Your task to perform on an android device: move a message to another label in the gmail app Image 0: 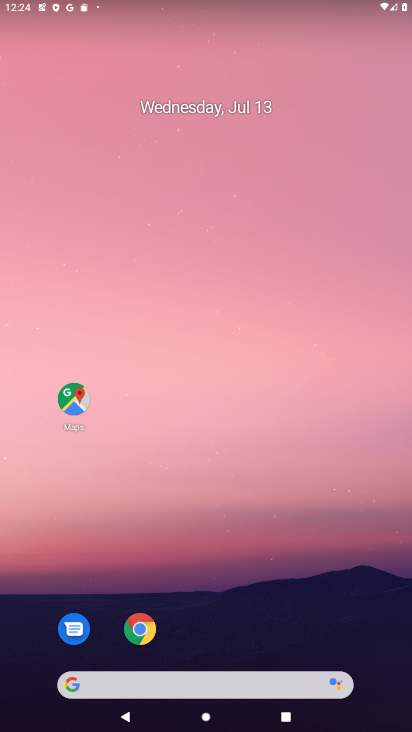
Step 0: drag from (227, 594) to (227, 218)
Your task to perform on an android device: move a message to another label in the gmail app Image 1: 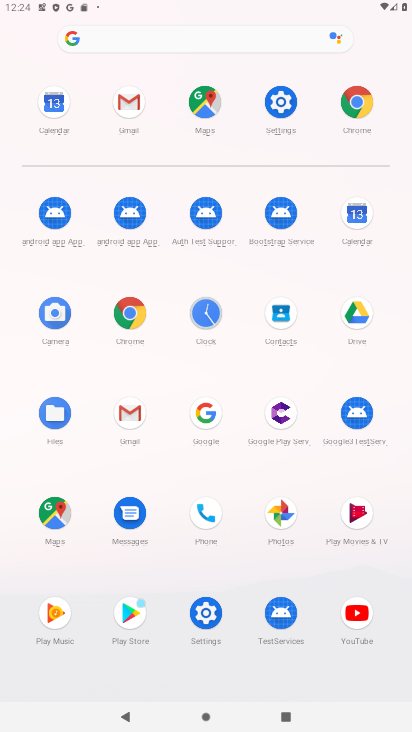
Step 1: click (132, 103)
Your task to perform on an android device: move a message to another label in the gmail app Image 2: 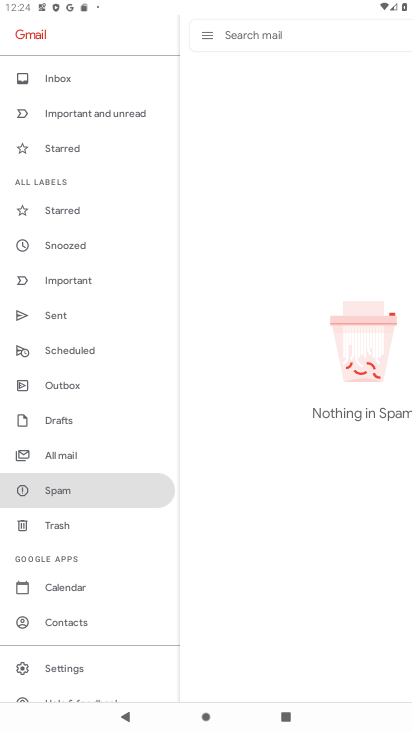
Step 2: click (87, 454)
Your task to perform on an android device: move a message to another label in the gmail app Image 3: 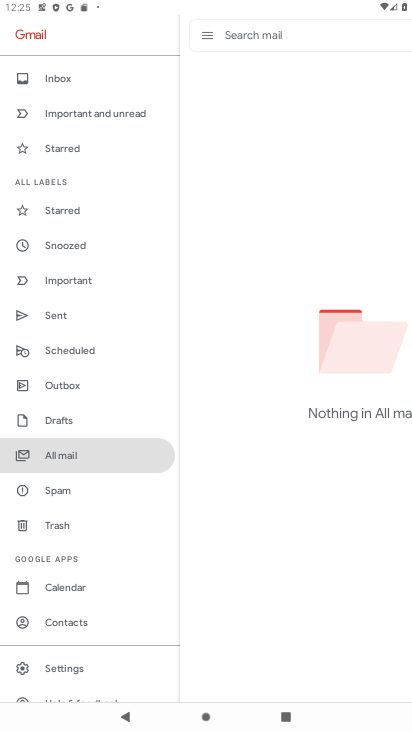
Step 3: task complete